Your task to perform on an android device: turn on improve location accuracy Image 0: 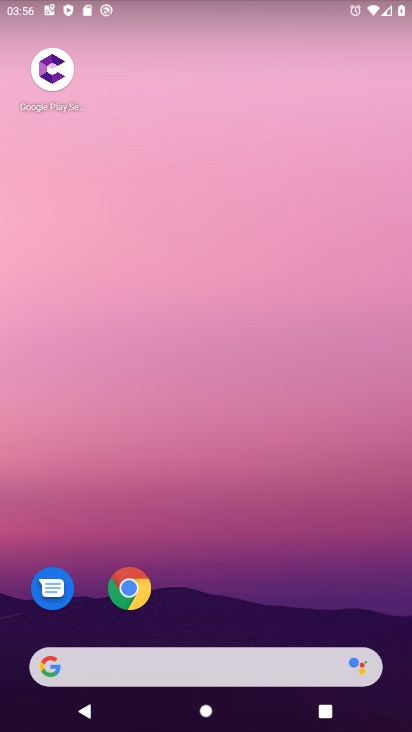
Step 0: press home button
Your task to perform on an android device: turn on improve location accuracy Image 1: 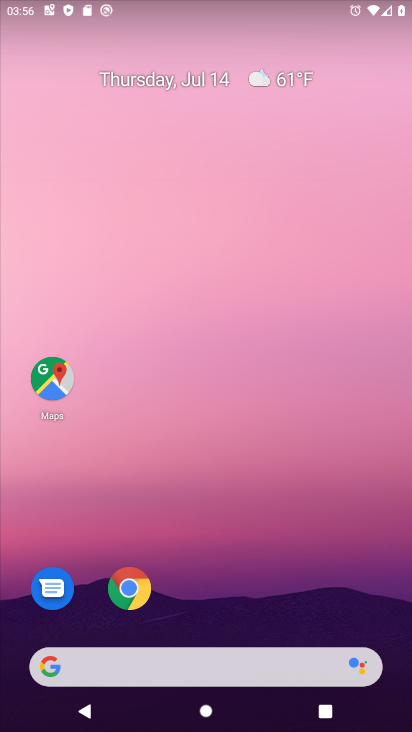
Step 1: drag from (272, 578) to (229, 11)
Your task to perform on an android device: turn on improve location accuracy Image 2: 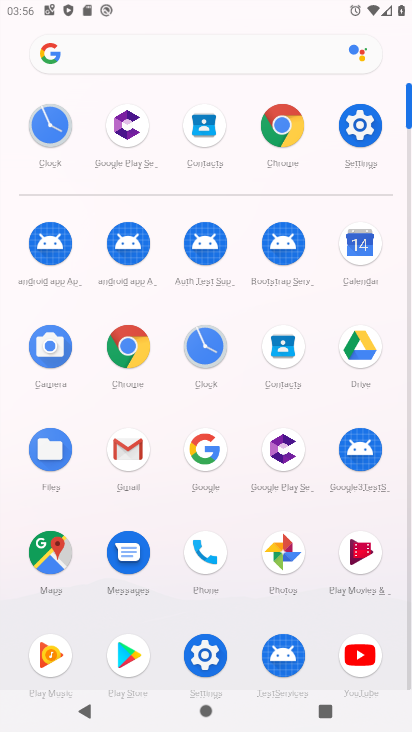
Step 2: click (357, 139)
Your task to perform on an android device: turn on improve location accuracy Image 3: 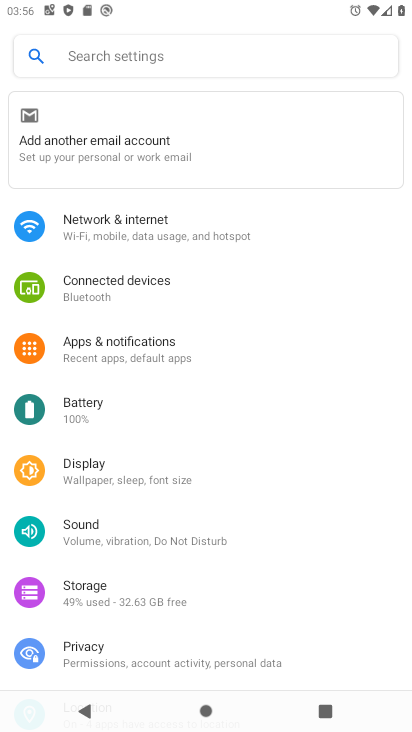
Step 3: drag from (100, 620) to (106, 285)
Your task to perform on an android device: turn on improve location accuracy Image 4: 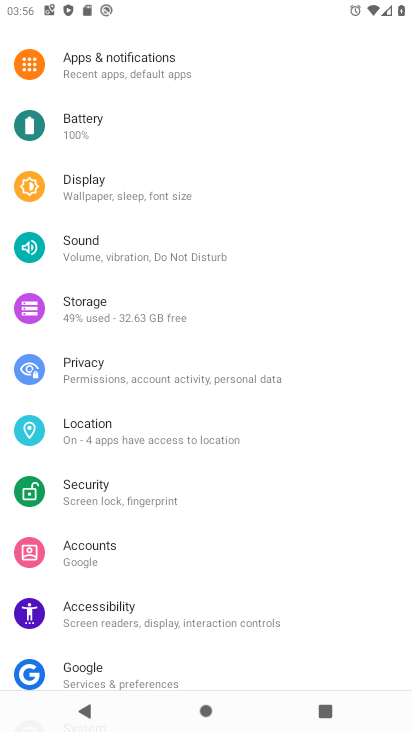
Step 4: click (99, 426)
Your task to perform on an android device: turn on improve location accuracy Image 5: 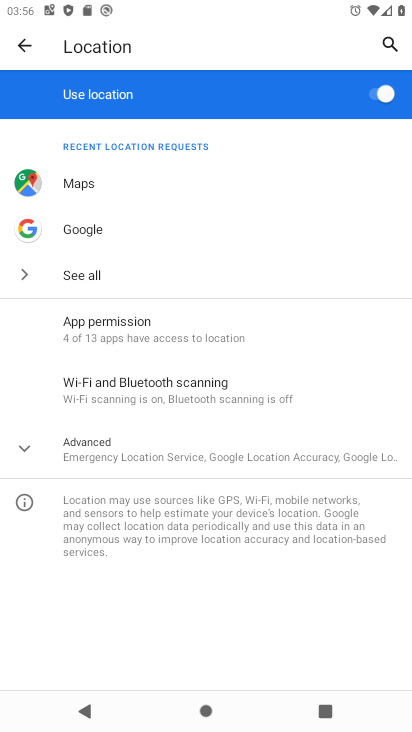
Step 5: click (28, 454)
Your task to perform on an android device: turn on improve location accuracy Image 6: 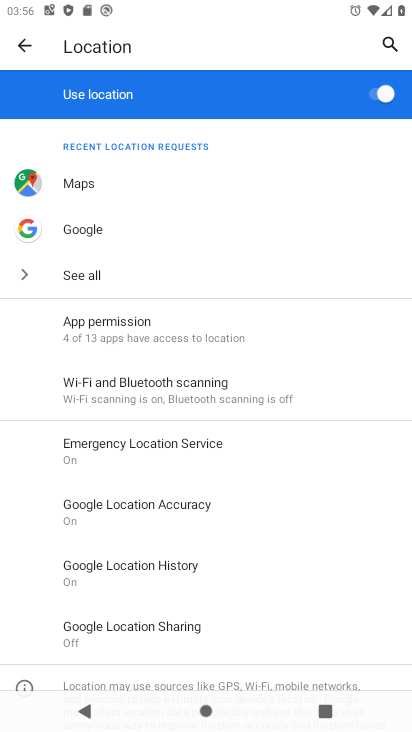
Step 6: click (138, 509)
Your task to perform on an android device: turn on improve location accuracy Image 7: 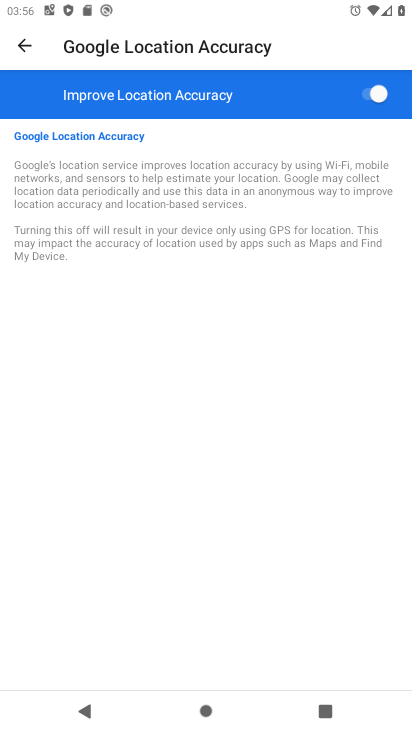
Step 7: task complete